Your task to perform on an android device: check out phone information Image 0: 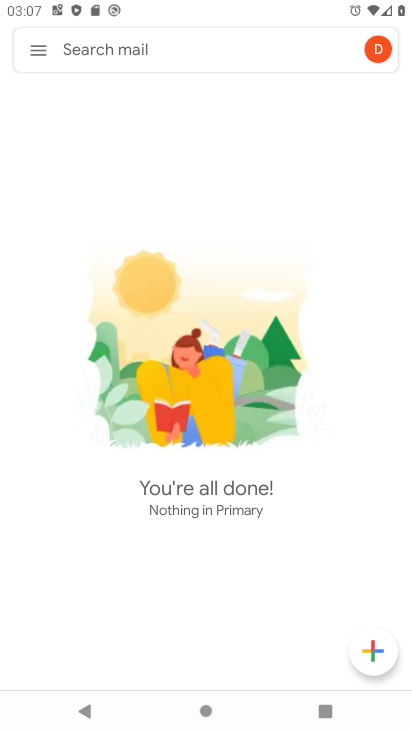
Step 0: press home button
Your task to perform on an android device: check out phone information Image 1: 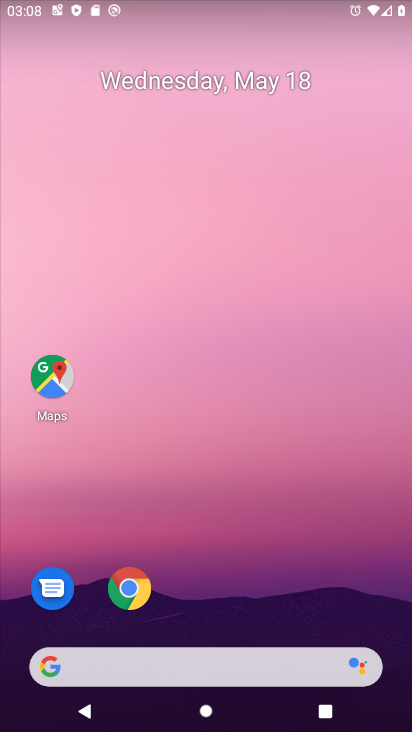
Step 1: drag from (2, 705) to (214, 133)
Your task to perform on an android device: check out phone information Image 2: 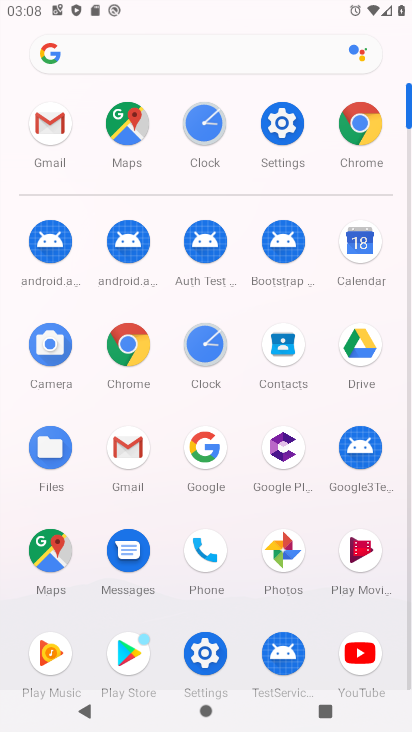
Step 2: click (190, 554)
Your task to perform on an android device: check out phone information Image 3: 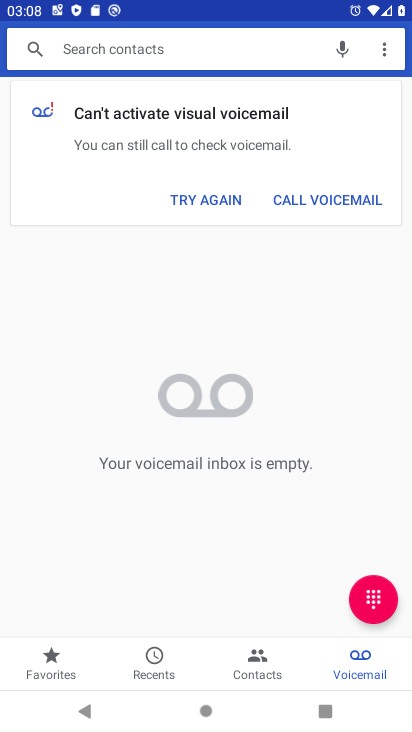
Step 3: task complete